Your task to perform on an android device: Open the calendar app, open the side menu, and click the "Day" option Image 0: 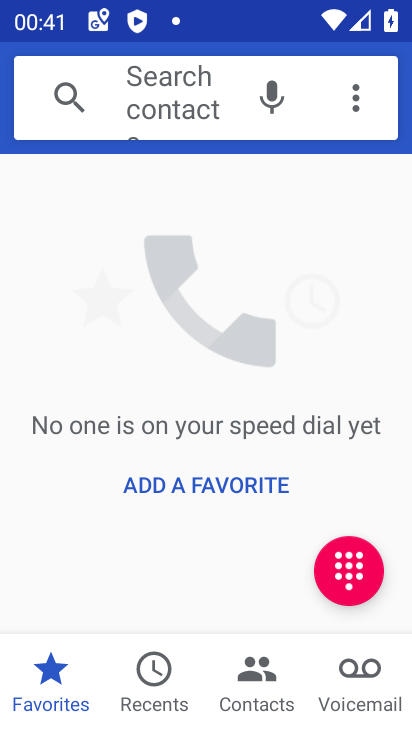
Step 0: press back button
Your task to perform on an android device: Open the calendar app, open the side menu, and click the "Day" option Image 1: 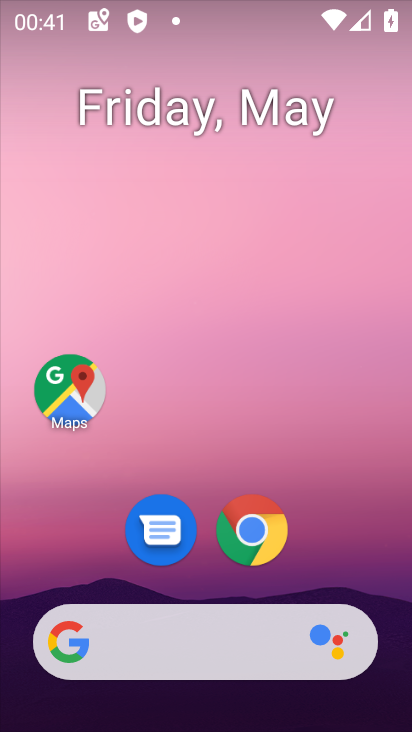
Step 1: drag from (341, 573) to (235, 114)
Your task to perform on an android device: Open the calendar app, open the side menu, and click the "Day" option Image 2: 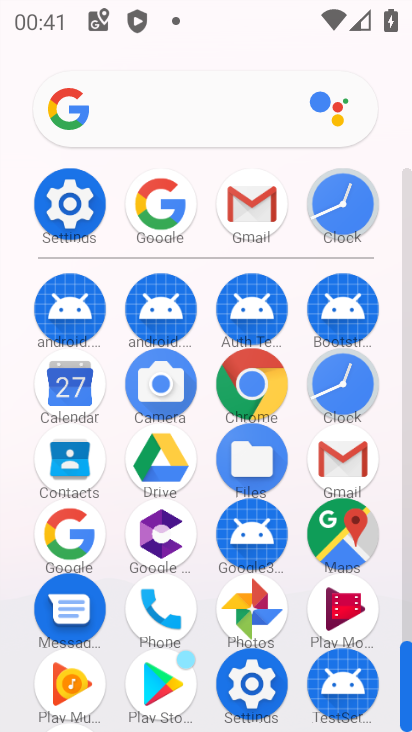
Step 2: click (70, 388)
Your task to perform on an android device: Open the calendar app, open the side menu, and click the "Day" option Image 3: 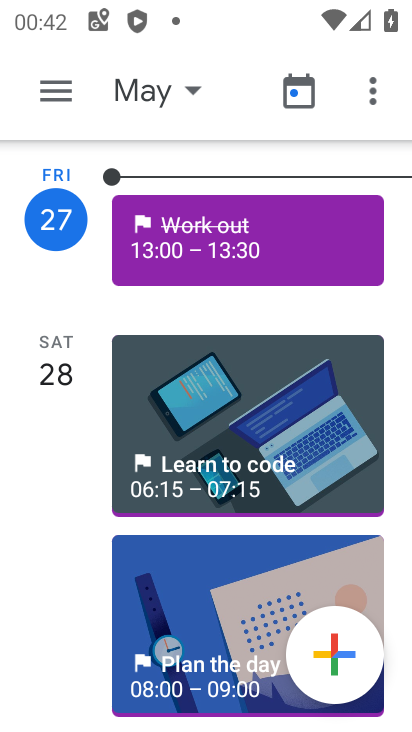
Step 3: click (58, 89)
Your task to perform on an android device: Open the calendar app, open the side menu, and click the "Day" option Image 4: 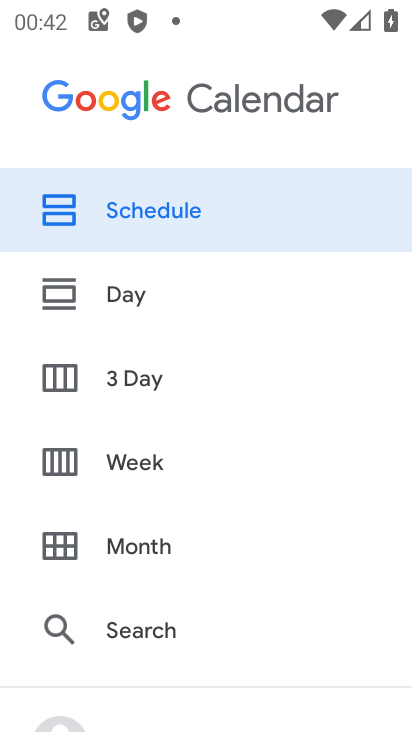
Step 4: click (127, 286)
Your task to perform on an android device: Open the calendar app, open the side menu, and click the "Day" option Image 5: 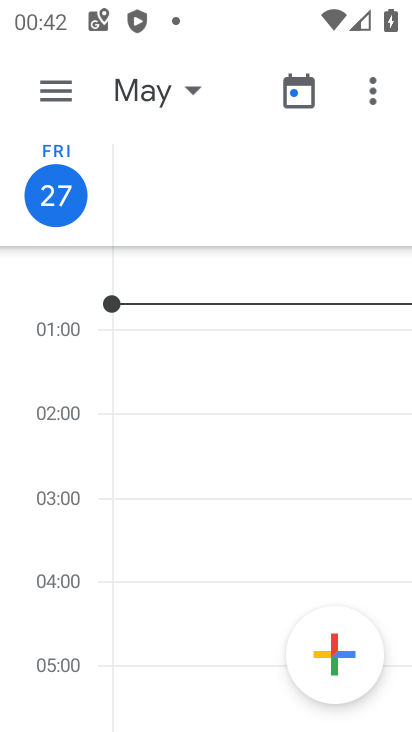
Step 5: task complete